Your task to perform on an android device: toggle notification dots Image 0: 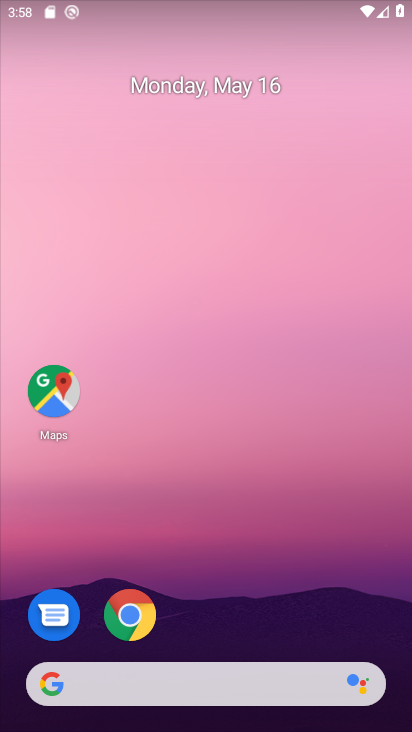
Step 0: drag from (229, 600) to (285, 44)
Your task to perform on an android device: toggle notification dots Image 1: 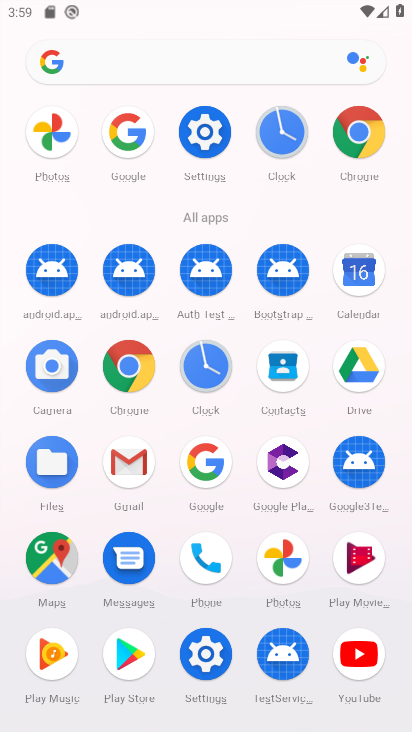
Step 1: click (201, 126)
Your task to perform on an android device: toggle notification dots Image 2: 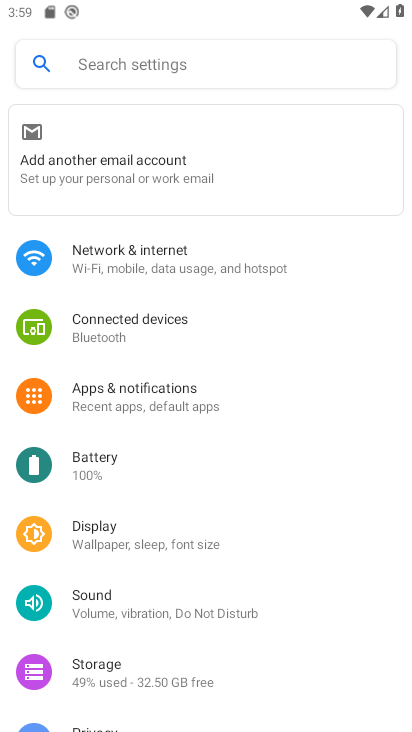
Step 2: click (107, 396)
Your task to perform on an android device: toggle notification dots Image 3: 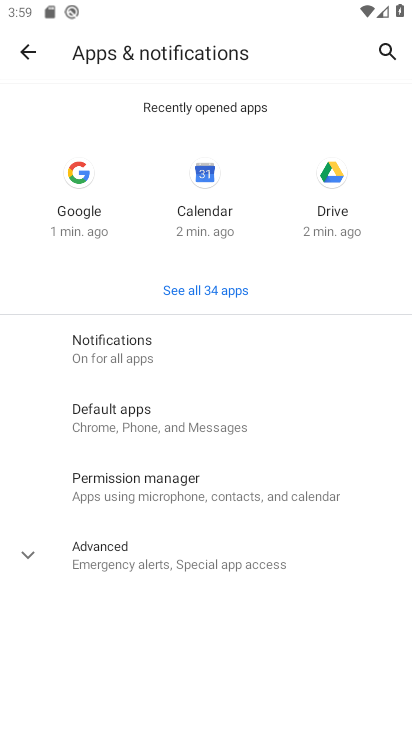
Step 3: click (93, 359)
Your task to perform on an android device: toggle notification dots Image 4: 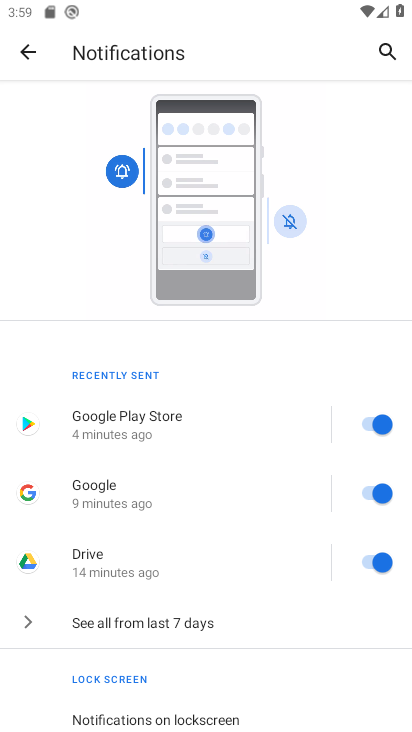
Step 4: drag from (146, 653) to (165, 546)
Your task to perform on an android device: toggle notification dots Image 5: 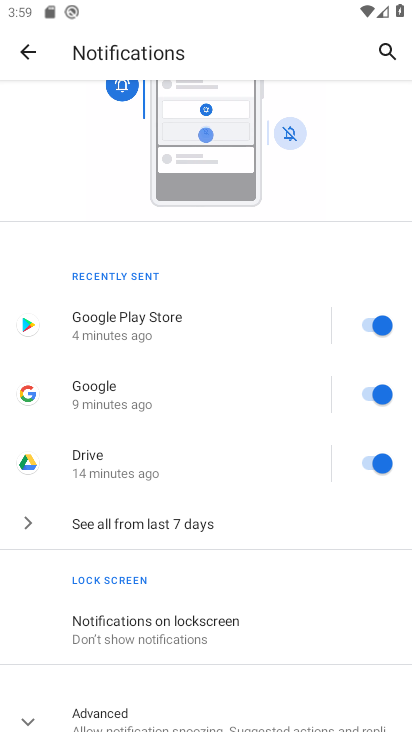
Step 5: drag from (155, 622) to (169, 485)
Your task to perform on an android device: toggle notification dots Image 6: 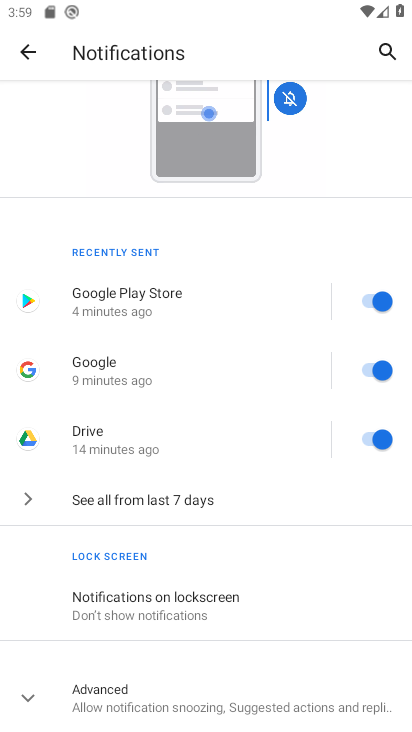
Step 6: click (84, 686)
Your task to perform on an android device: toggle notification dots Image 7: 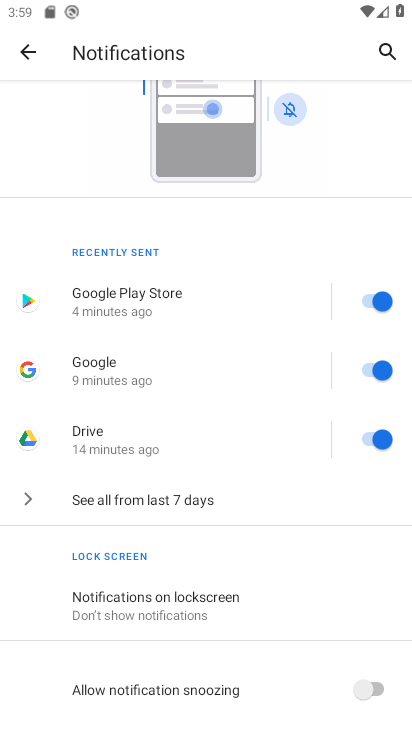
Step 7: drag from (151, 644) to (162, 390)
Your task to perform on an android device: toggle notification dots Image 8: 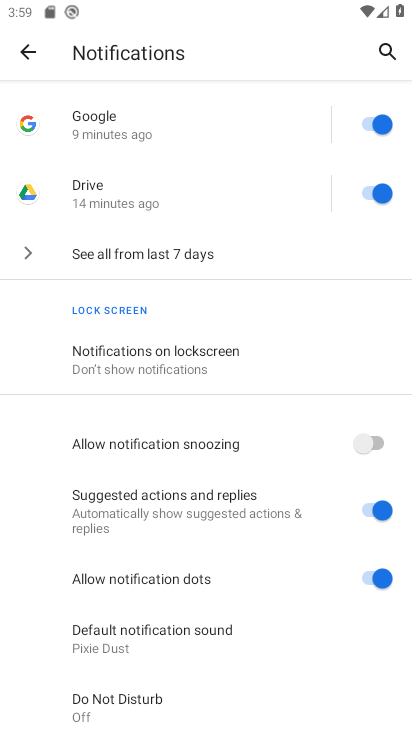
Step 8: drag from (175, 660) to (210, 466)
Your task to perform on an android device: toggle notification dots Image 9: 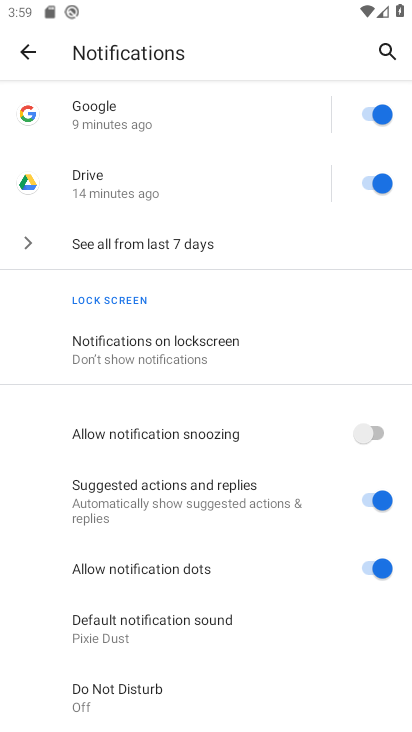
Step 9: click (363, 569)
Your task to perform on an android device: toggle notification dots Image 10: 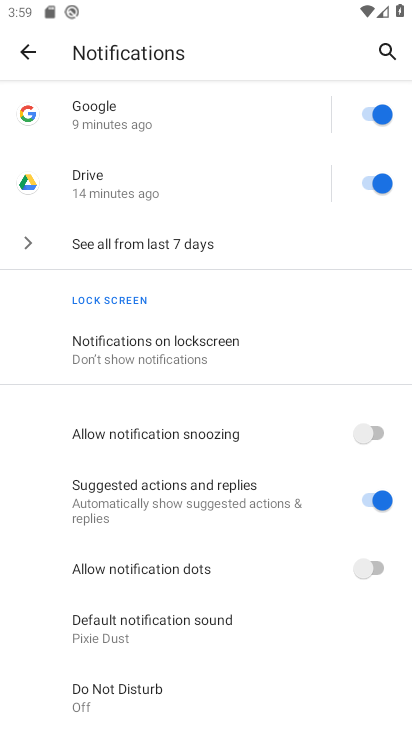
Step 10: task complete